Your task to perform on an android device: turn off notifications settings in the gmail app Image 0: 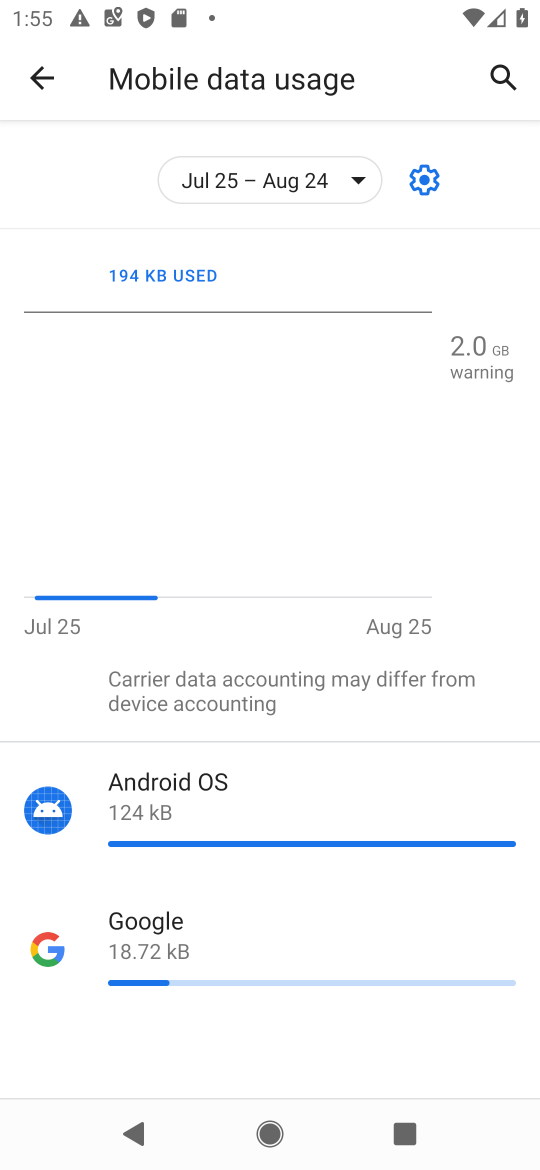
Step 0: press home button
Your task to perform on an android device: turn off notifications settings in the gmail app Image 1: 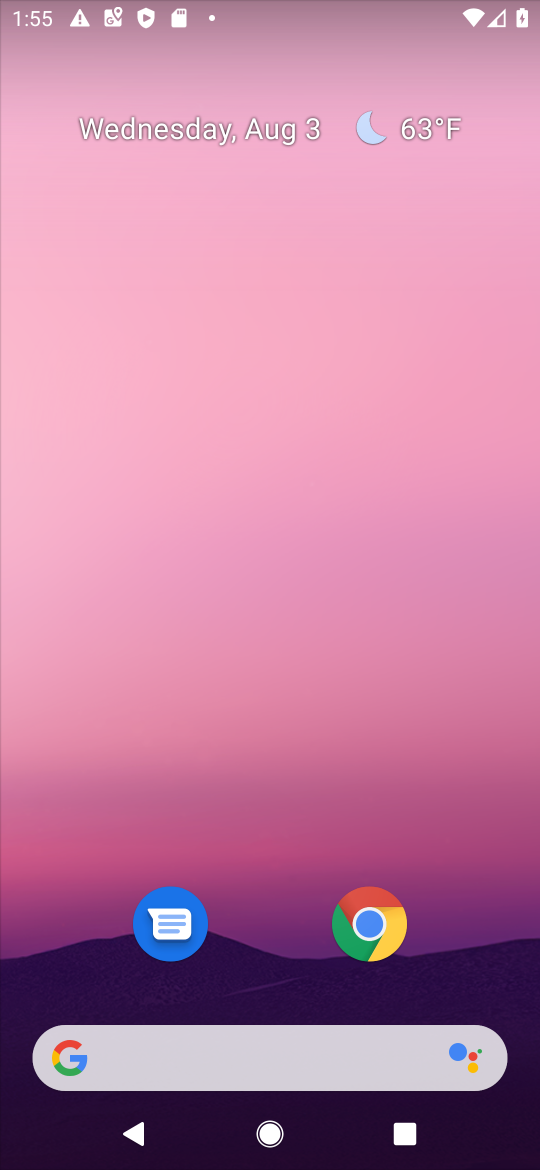
Step 1: drag from (280, 992) to (303, 92)
Your task to perform on an android device: turn off notifications settings in the gmail app Image 2: 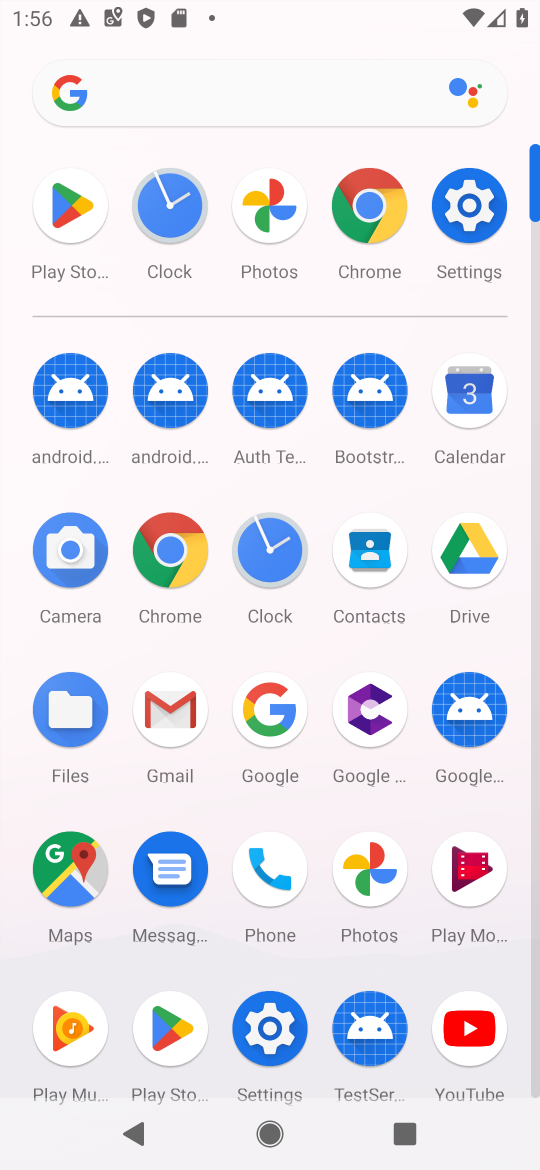
Step 2: click (172, 696)
Your task to perform on an android device: turn off notifications settings in the gmail app Image 3: 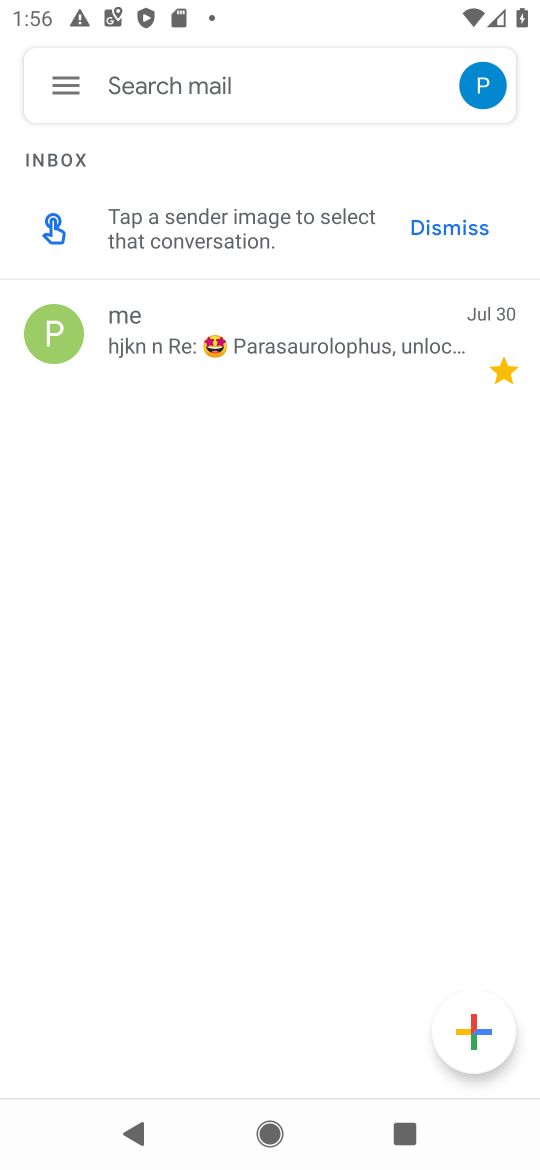
Step 3: click (45, 84)
Your task to perform on an android device: turn off notifications settings in the gmail app Image 4: 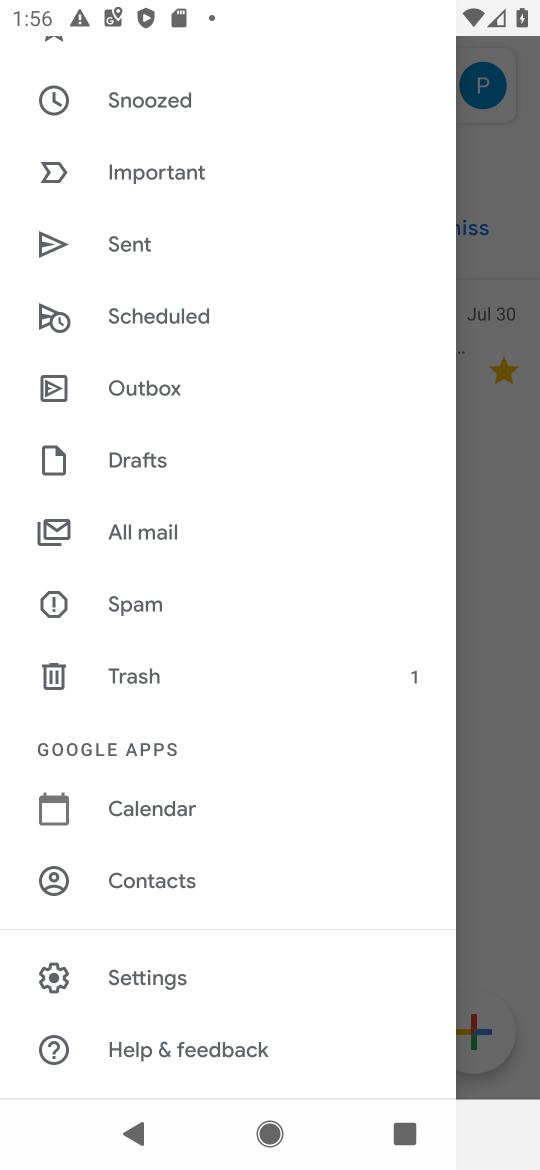
Step 4: click (169, 979)
Your task to perform on an android device: turn off notifications settings in the gmail app Image 5: 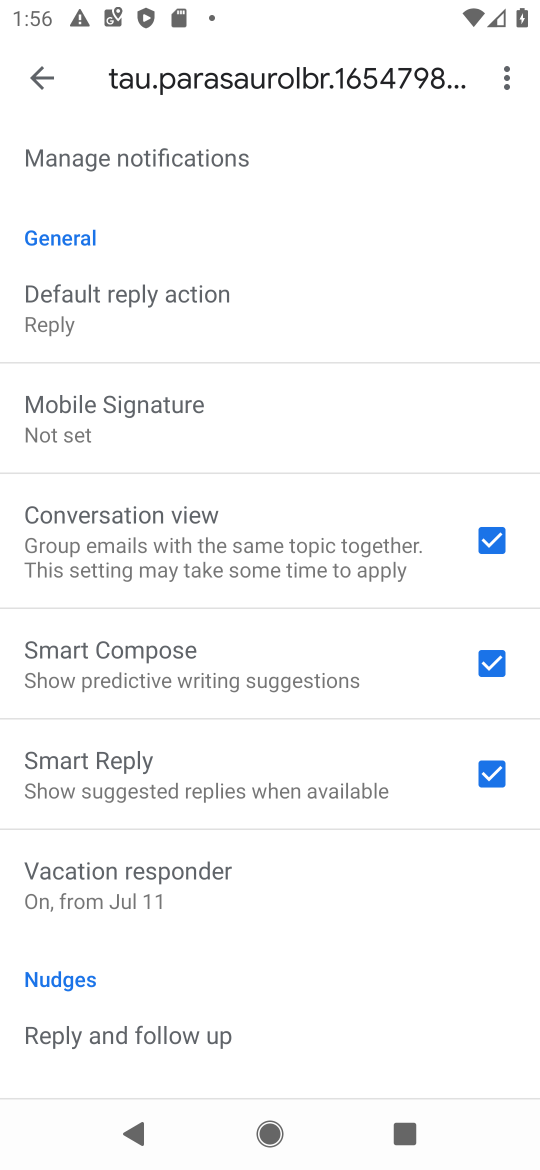
Step 5: click (46, 80)
Your task to perform on an android device: turn off notifications settings in the gmail app Image 6: 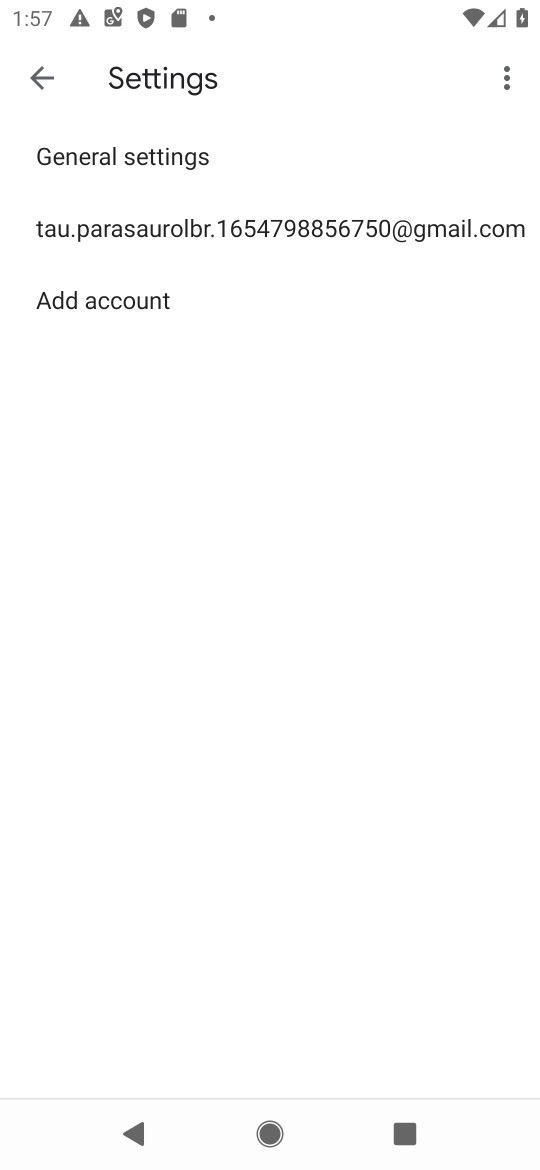
Step 6: click (129, 163)
Your task to perform on an android device: turn off notifications settings in the gmail app Image 7: 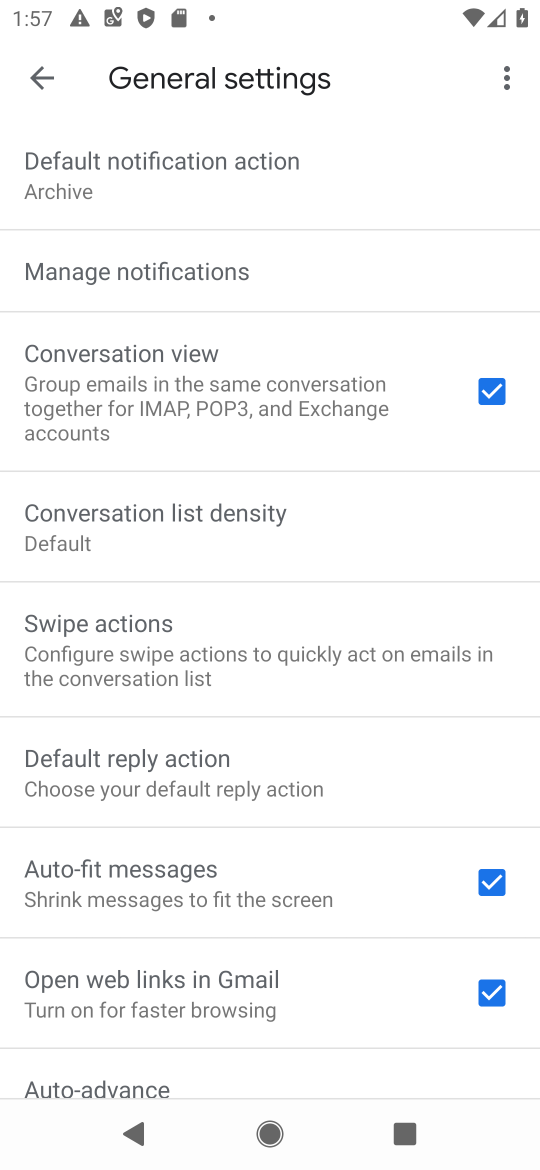
Step 7: click (164, 280)
Your task to perform on an android device: turn off notifications settings in the gmail app Image 8: 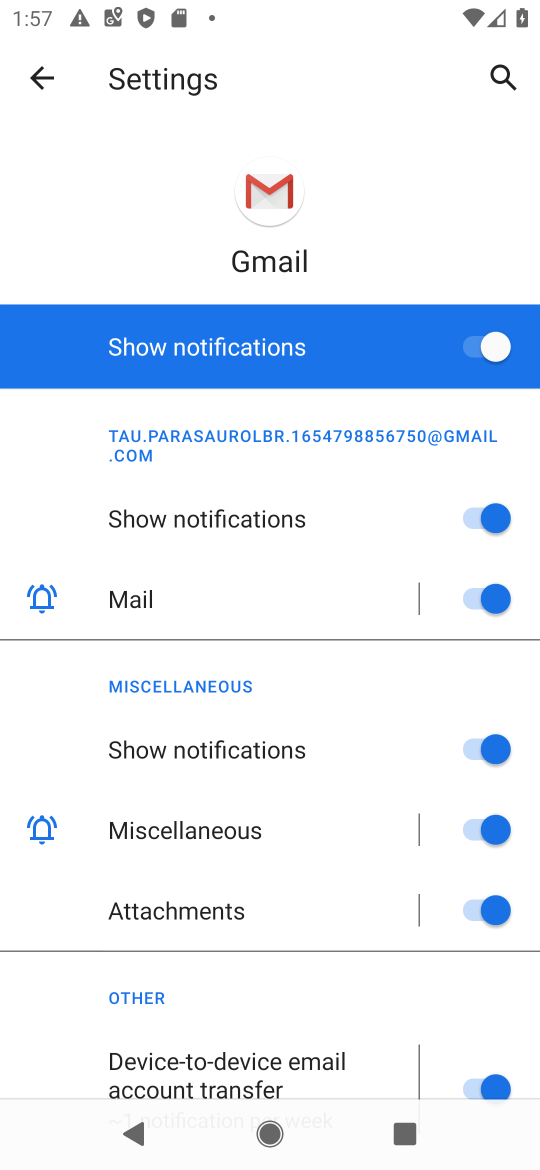
Step 8: click (461, 335)
Your task to perform on an android device: turn off notifications settings in the gmail app Image 9: 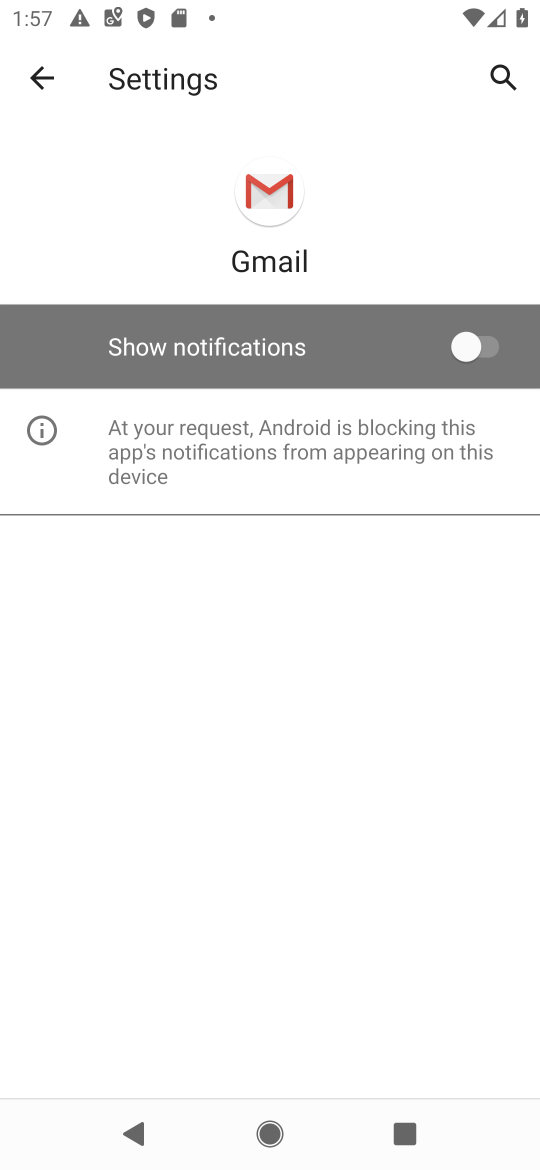
Step 9: task complete